Your task to perform on an android device: Open Google Maps Image 0: 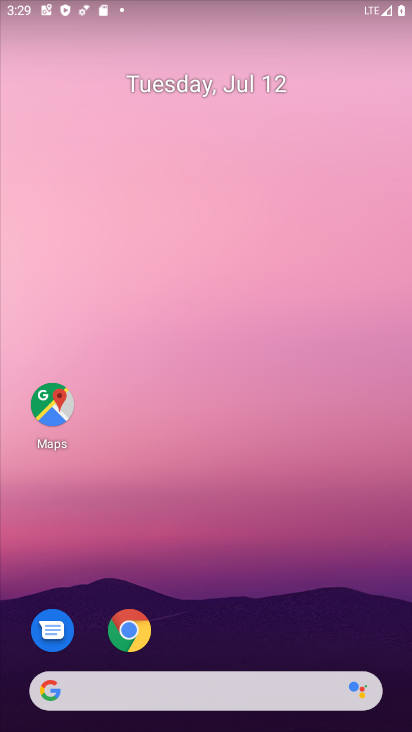
Step 0: drag from (337, 683) to (339, 50)
Your task to perform on an android device: Open Google Maps Image 1: 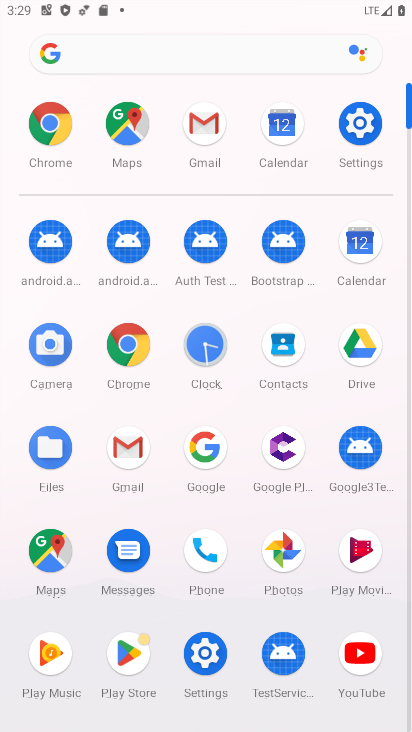
Step 1: click (53, 555)
Your task to perform on an android device: Open Google Maps Image 2: 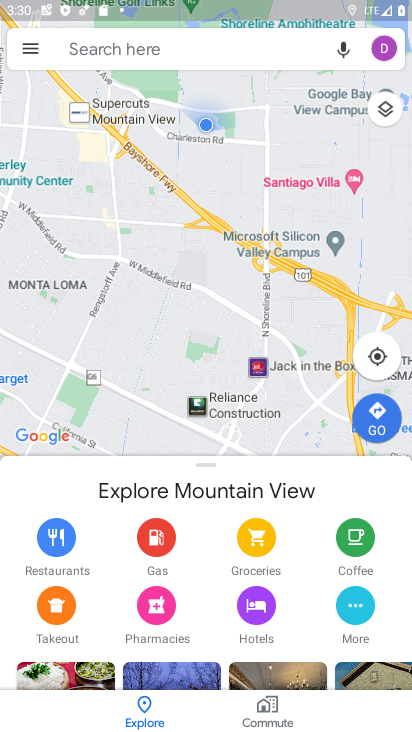
Step 2: task complete